Your task to perform on an android device: Find coffee shops on Maps Image 0: 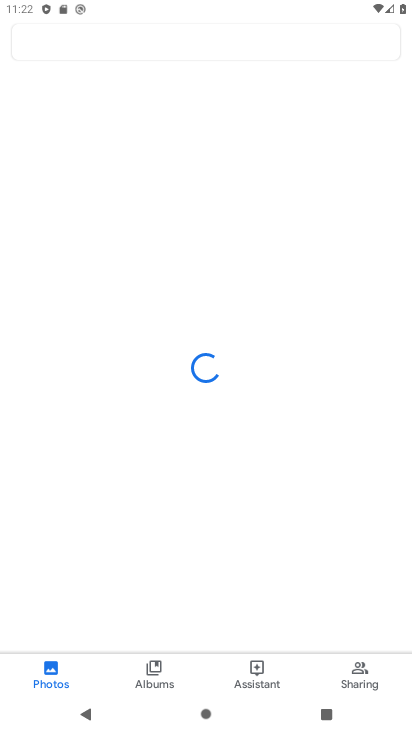
Step 0: press home button
Your task to perform on an android device: Find coffee shops on Maps Image 1: 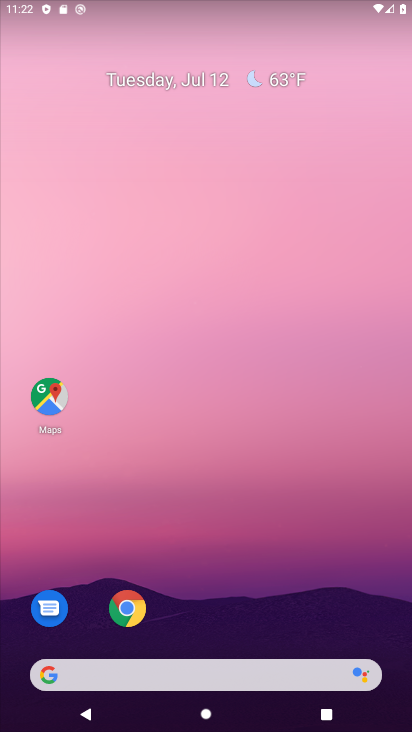
Step 1: click (46, 398)
Your task to perform on an android device: Find coffee shops on Maps Image 2: 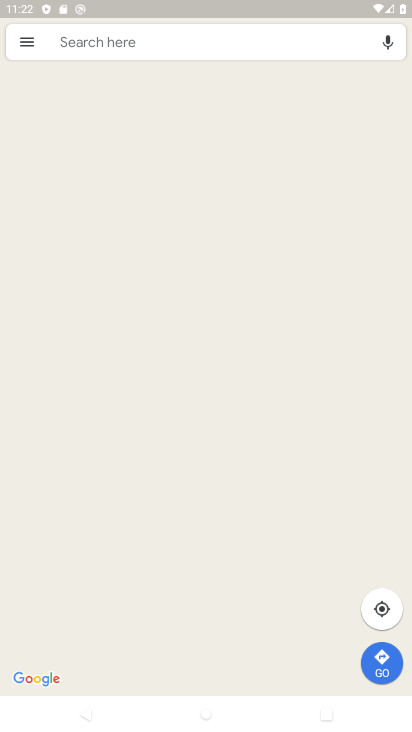
Step 2: click (157, 41)
Your task to perform on an android device: Find coffee shops on Maps Image 3: 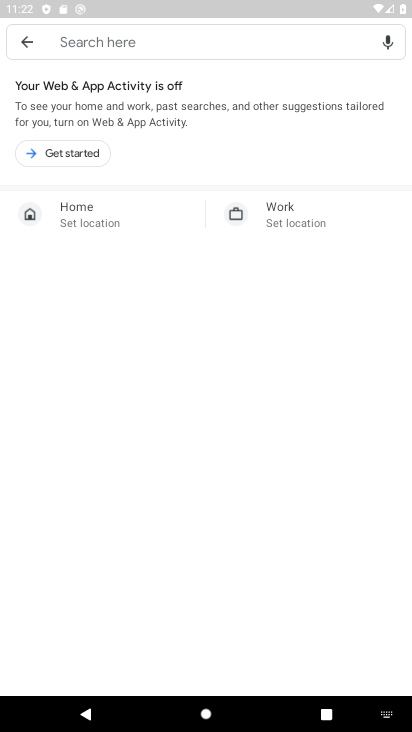
Step 3: click (85, 160)
Your task to perform on an android device: Find coffee shops on Maps Image 4: 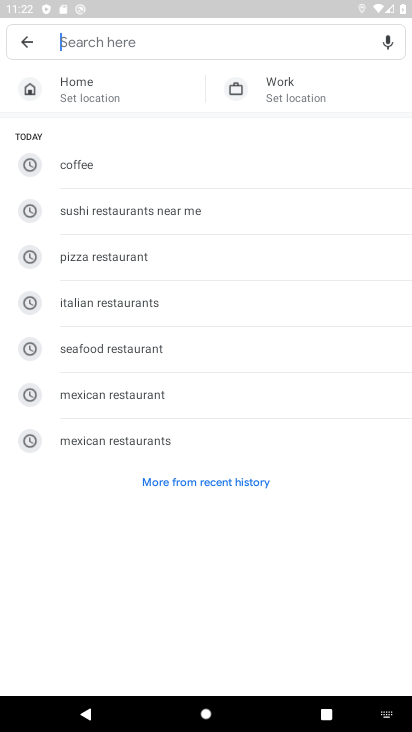
Step 4: click (86, 164)
Your task to perform on an android device: Find coffee shops on Maps Image 5: 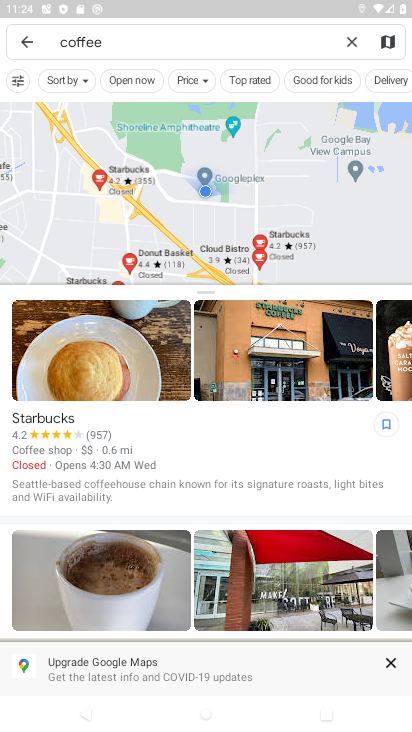
Step 5: task complete